Your task to perform on an android device: allow cookies in the chrome app Image 0: 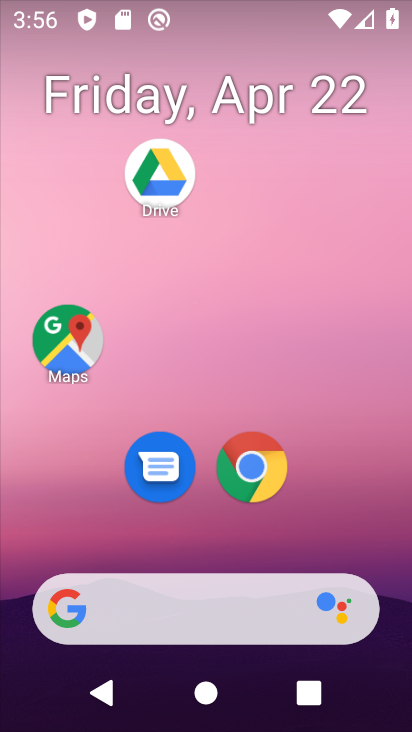
Step 0: click (252, 457)
Your task to perform on an android device: allow cookies in the chrome app Image 1: 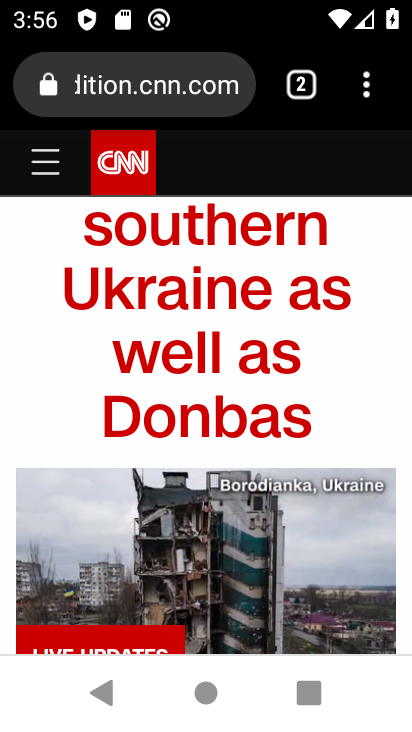
Step 1: click (361, 75)
Your task to perform on an android device: allow cookies in the chrome app Image 2: 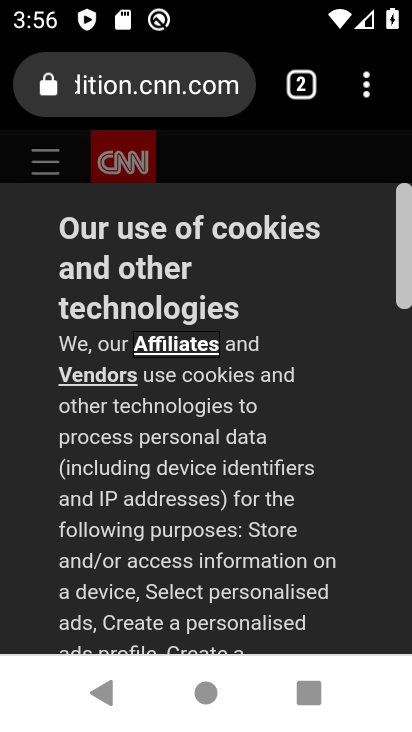
Step 2: click (369, 80)
Your task to perform on an android device: allow cookies in the chrome app Image 3: 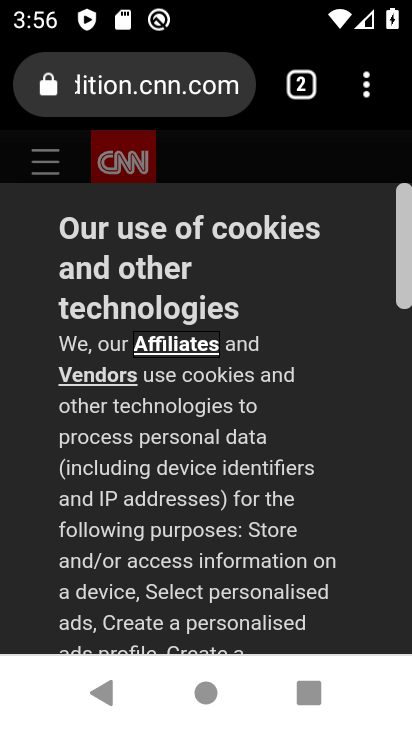
Step 3: drag from (217, 586) to (232, 185)
Your task to perform on an android device: allow cookies in the chrome app Image 4: 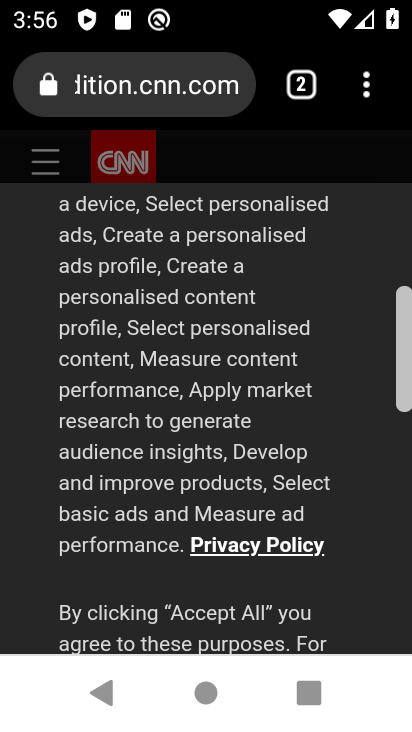
Step 4: drag from (221, 615) to (252, 229)
Your task to perform on an android device: allow cookies in the chrome app Image 5: 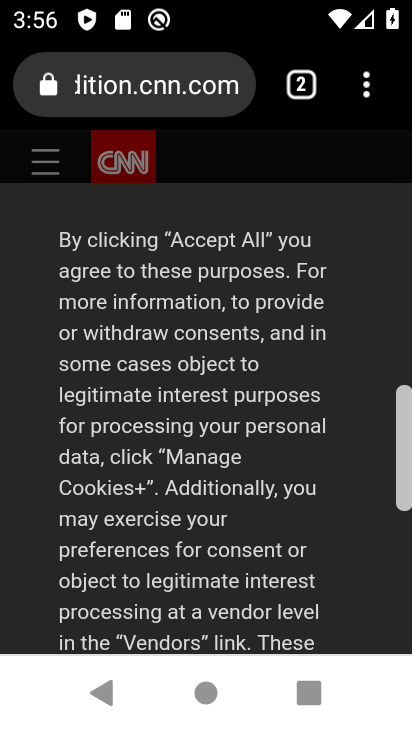
Step 5: drag from (223, 611) to (221, 227)
Your task to perform on an android device: allow cookies in the chrome app Image 6: 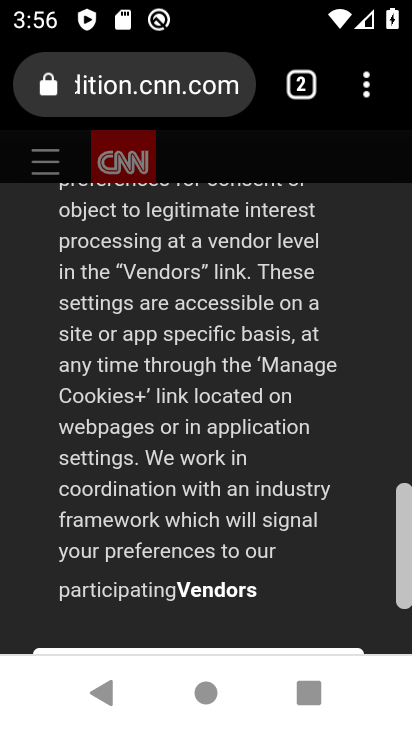
Step 6: drag from (200, 562) to (195, 208)
Your task to perform on an android device: allow cookies in the chrome app Image 7: 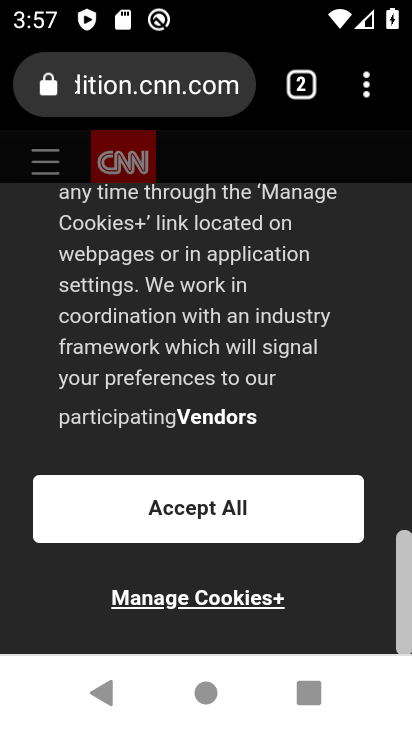
Step 7: click (214, 521)
Your task to perform on an android device: allow cookies in the chrome app Image 8: 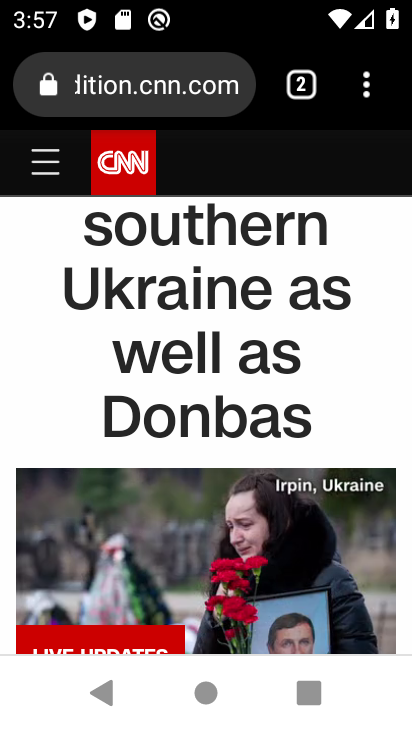
Step 8: click (364, 83)
Your task to perform on an android device: allow cookies in the chrome app Image 9: 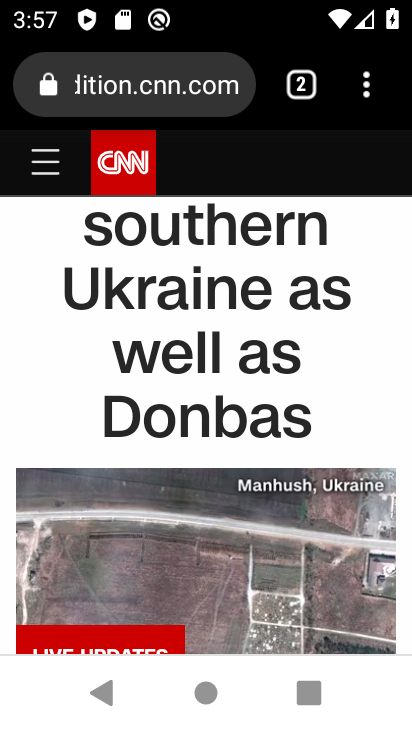
Step 9: click (367, 82)
Your task to perform on an android device: allow cookies in the chrome app Image 10: 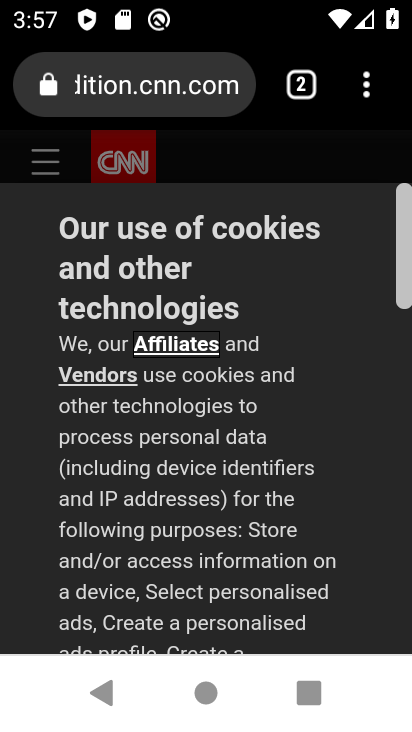
Step 10: click (367, 82)
Your task to perform on an android device: allow cookies in the chrome app Image 11: 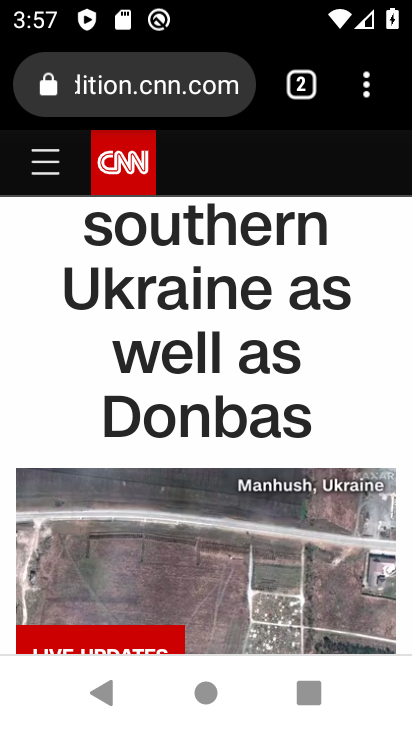
Step 11: click (365, 75)
Your task to perform on an android device: allow cookies in the chrome app Image 12: 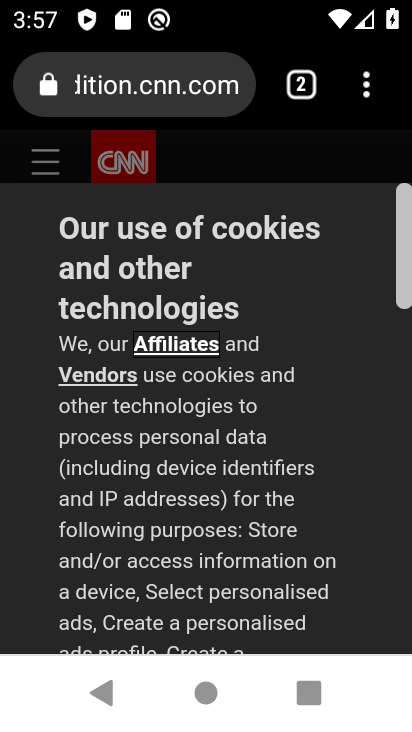
Step 12: click (296, 77)
Your task to perform on an android device: allow cookies in the chrome app Image 13: 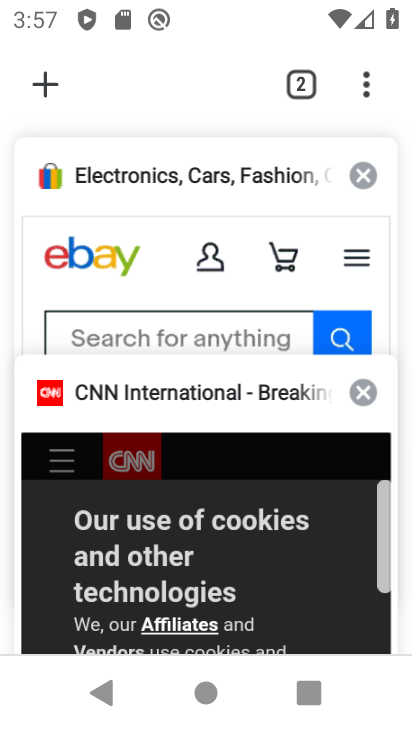
Step 13: click (40, 82)
Your task to perform on an android device: allow cookies in the chrome app Image 14: 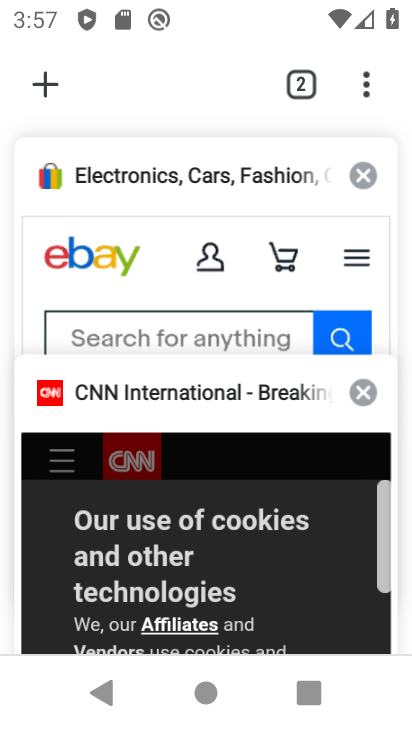
Step 14: click (44, 86)
Your task to perform on an android device: allow cookies in the chrome app Image 15: 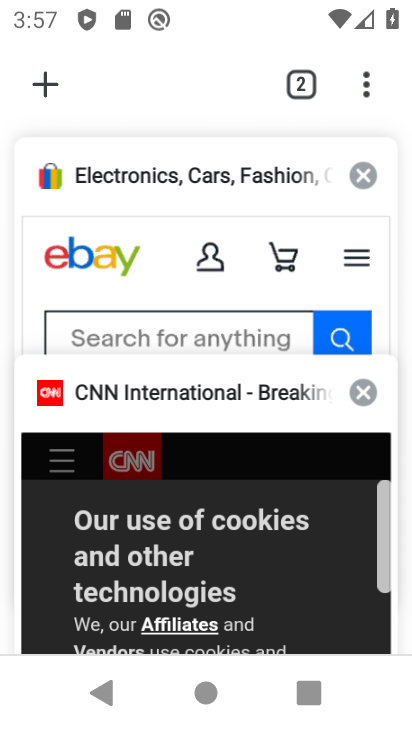
Step 15: click (51, 91)
Your task to perform on an android device: allow cookies in the chrome app Image 16: 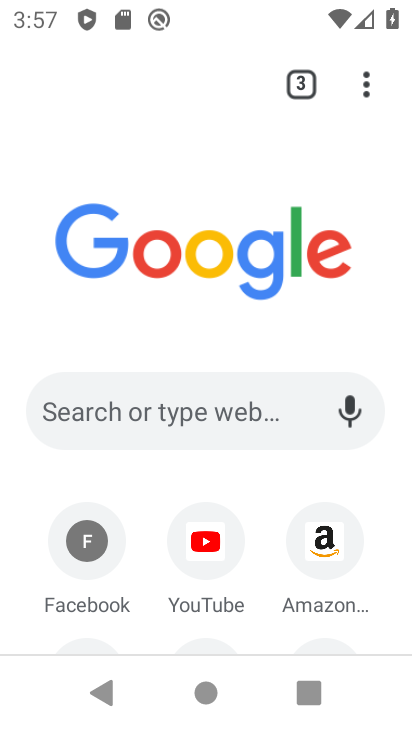
Step 16: click (367, 83)
Your task to perform on an android device: allow cookies in the chrome app Image 17: 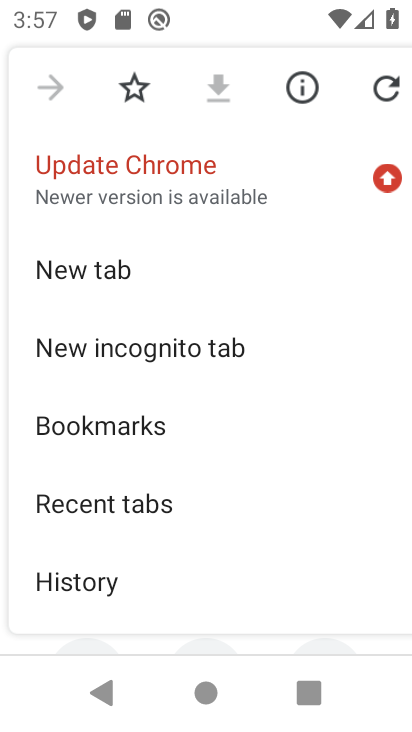
Step 17: drag from (200, 572) to (195, 165)
Your task to perform on an android device: allow cookies in the chrome app Image 18: 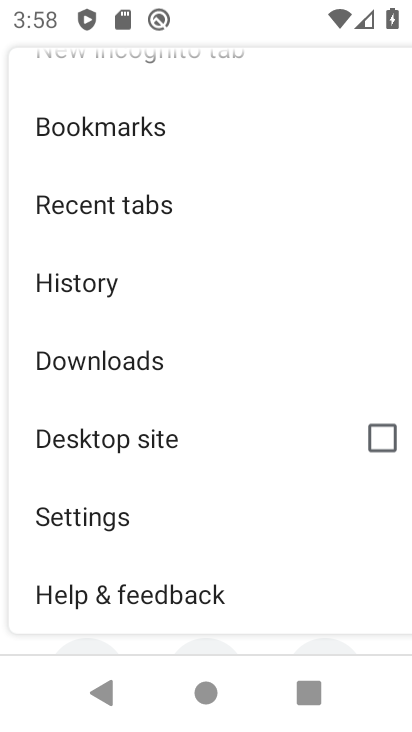
Step 18: click (148, 512)
Your task to perform on an android device: allow cookies in the chrome app Image 19: 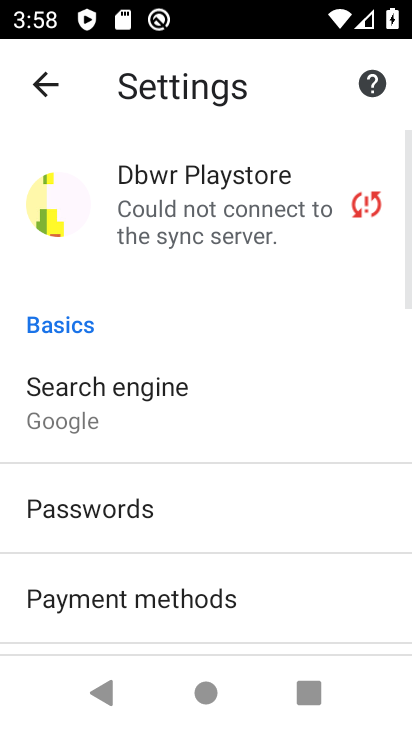
Step 19: drag from (265, 586) to (247, 88)
Your task to perform on an android device: allow cookies in the chrome app Image 20: 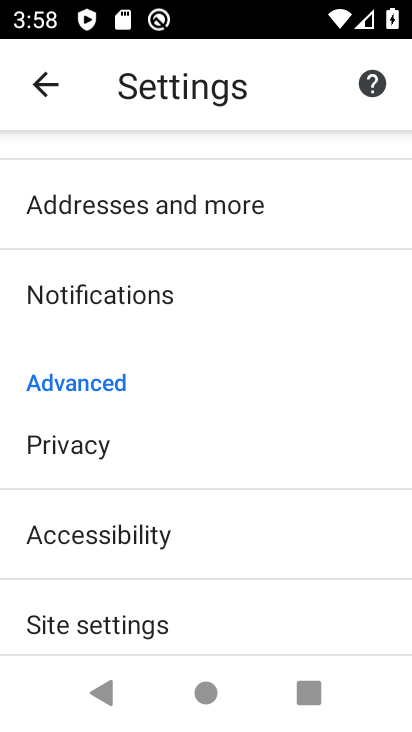
Step 20: drag from (238, 617) to (254, 95)
Your task to perform on an android device: allow cookies in the chrome app Image 21: 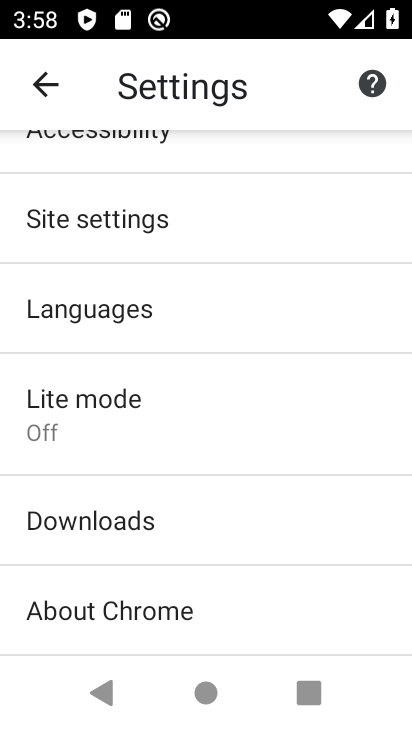
Step 21: click (177, 214)
Your task to perform on an android device: allow cookies in the chrome app Image 22: 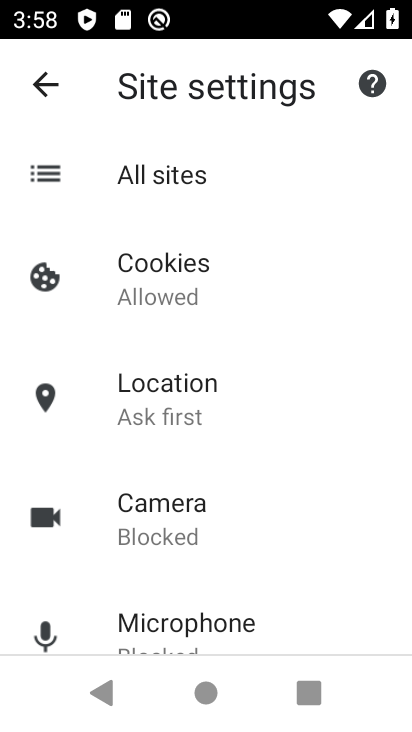
Step 22: click (90, 271)
Your task to perform on an android device: allow cookies in the chrome app Image 23: 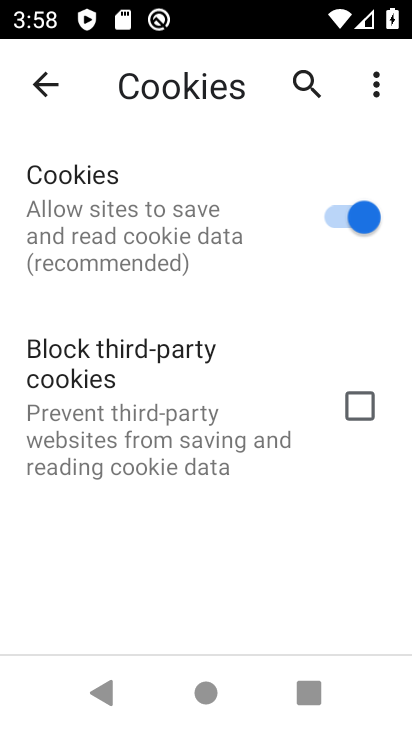
Step 23: task complete